Your task to perform on an android device: turn off wifi Image 0: 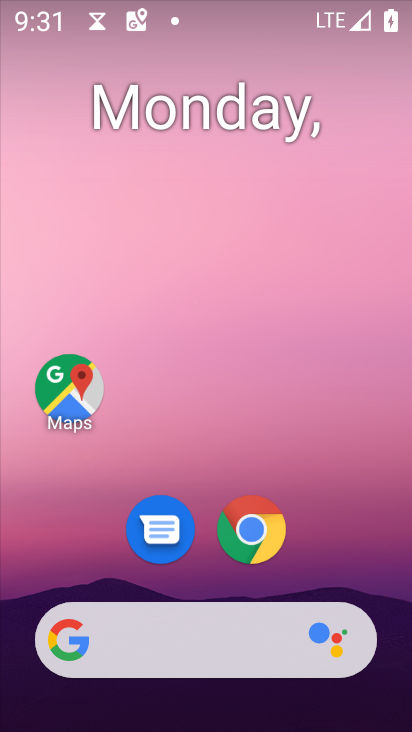
Step 0: drag from (303, 626) to (190, 71)
Your task to perform on an android device: turn off wifi Image 1: 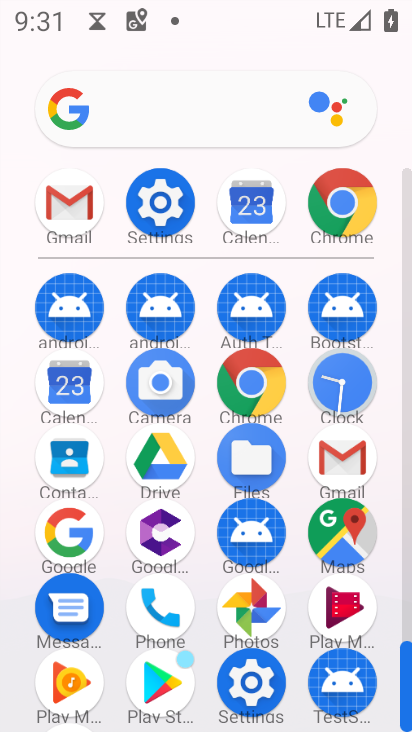
Step 1: click (158, 193)
Your task to perform on an android device: turn off wifi Image 2: 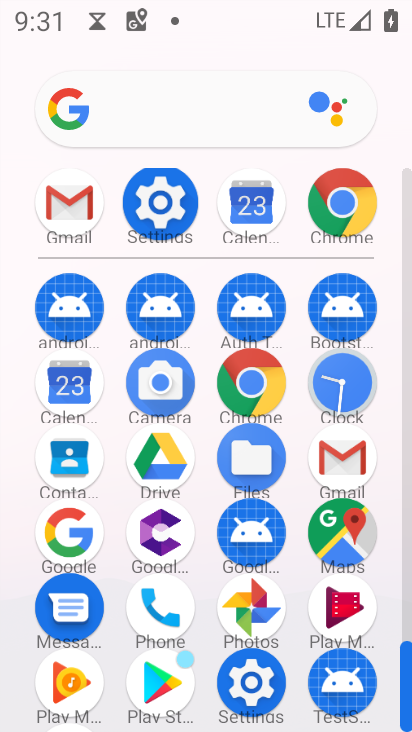
Step 2: click (161, 192)
Your task to perform on an android device: turn off wifi Image 3: 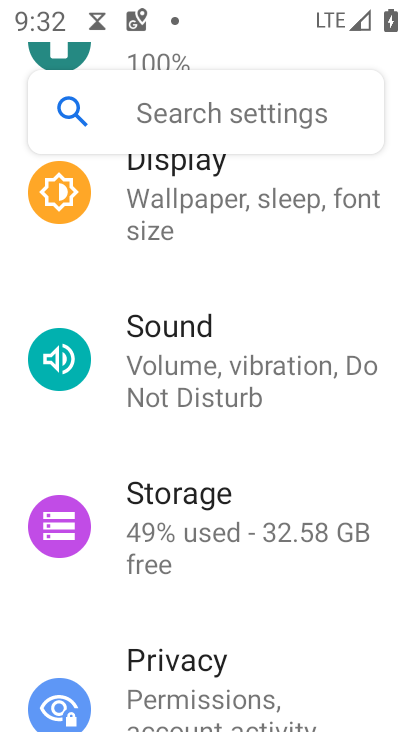
Step 3: click (193, 171)
Your task to perform on an android device: turn off wifi Image 4: 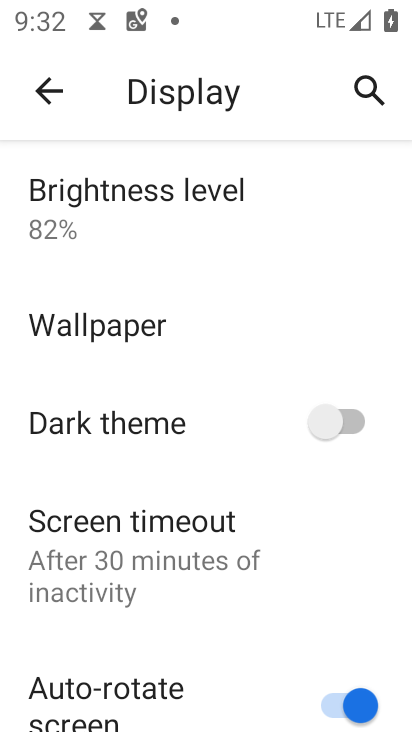
Step 4: click (54, 117)
Your task to perform on an android device: turn off wifi Image 5: 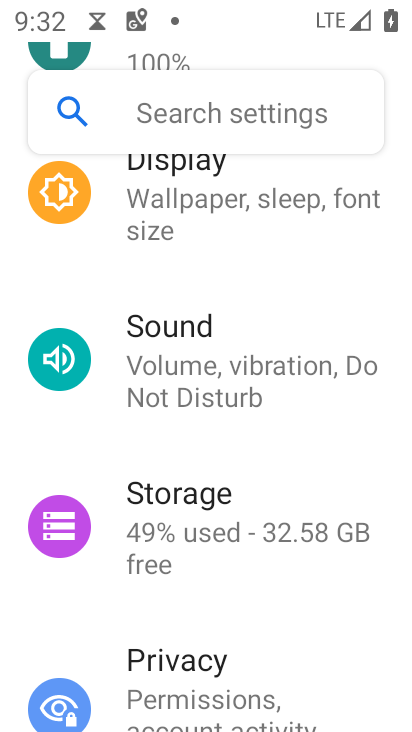
Step 5: drag from (200, 230) to (214, 700)
Your task to perform on an android device: turn off wifi Image 6: 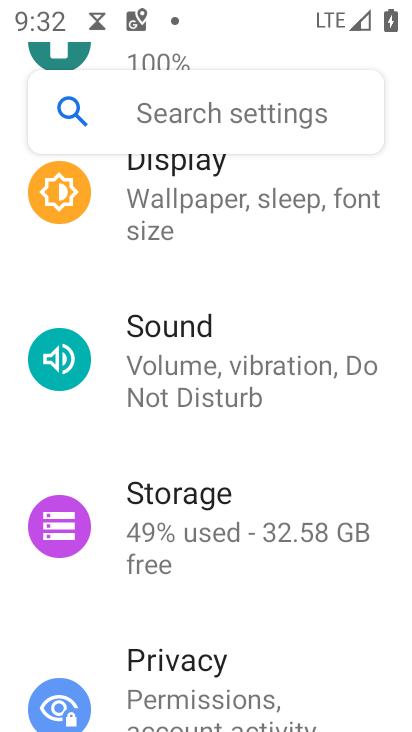
Step 6: drag from (186, 416) to (198, 660)
Your task to perform on an android device: turn off wifi Image 7: 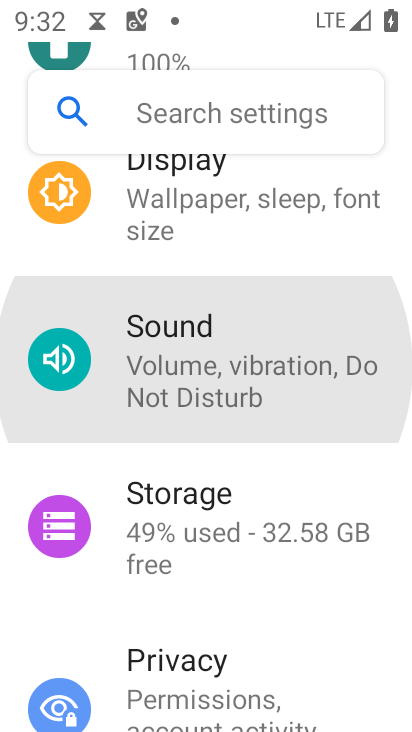
Step 7: drag from (200, 268) to (264, 680)
Your task to perform on an android device: turn off wifi Image 8: 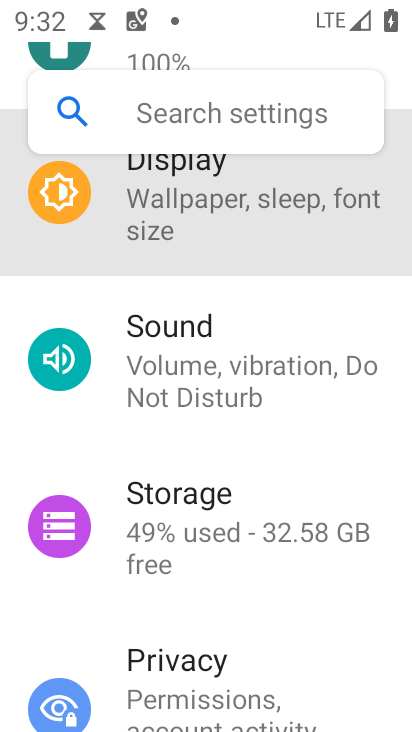
Step 8: drag from (250, 376) to (232, 671)
Your task to perform on an android device: turn off wifi Image 9: 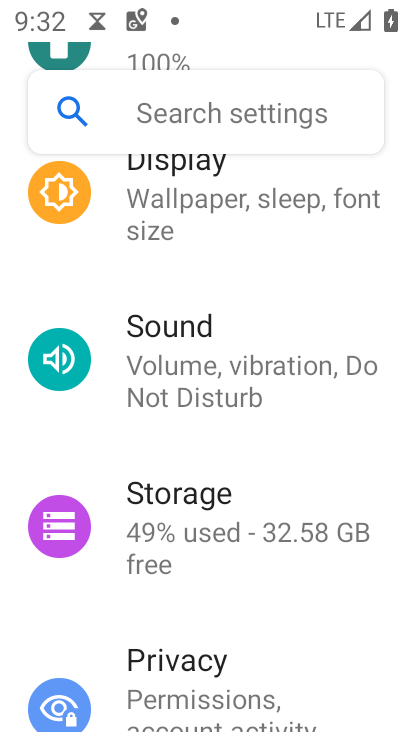
Step 9: drag from (179, 660) to (235, 222)
Your task to perform on an android device: turn off wifi Image 10: 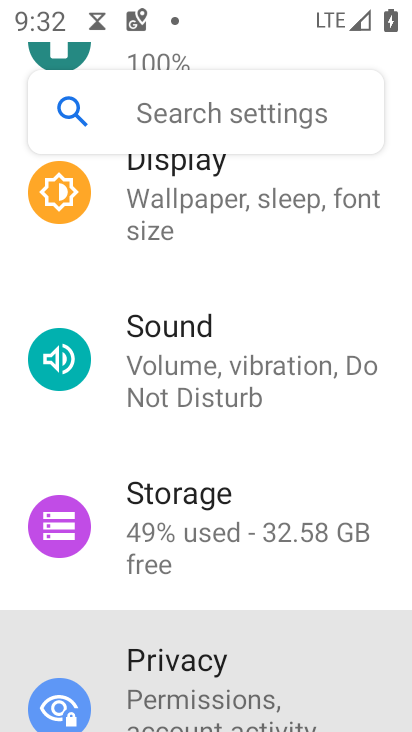
Step 10: drag from (193, 586) to (182, 175)
Your task to perform on an android device: turn off wifi Image 11: 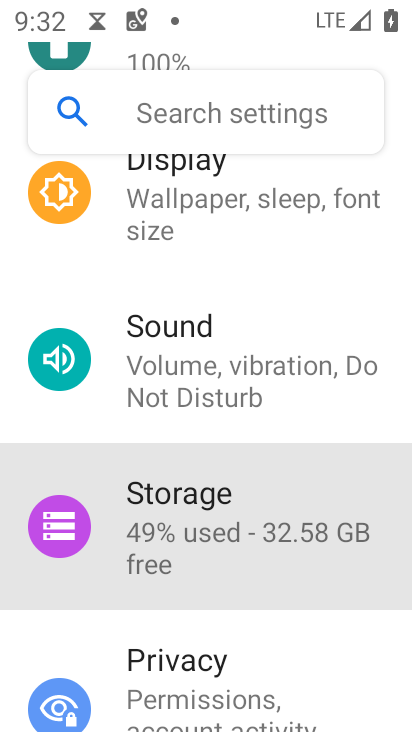
Step 11: drag from (223, 617) to (297, 268)
Your task to perform on an android device: turn off wifi Image 12: 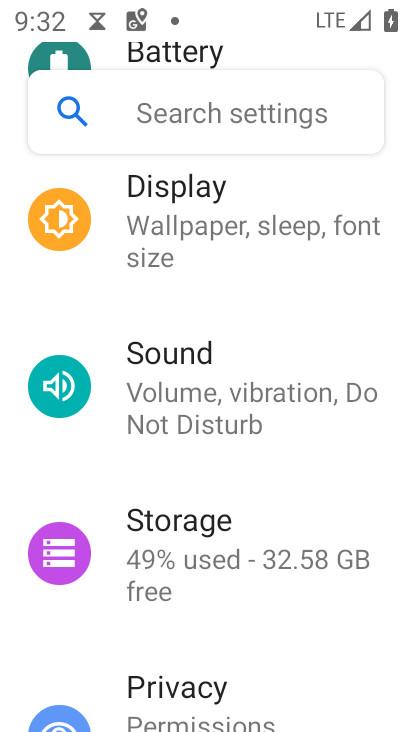
Step 12: drag from (253, 651) to (290, 261)
Your task to perform on an android device: turn off wifi Image 13: 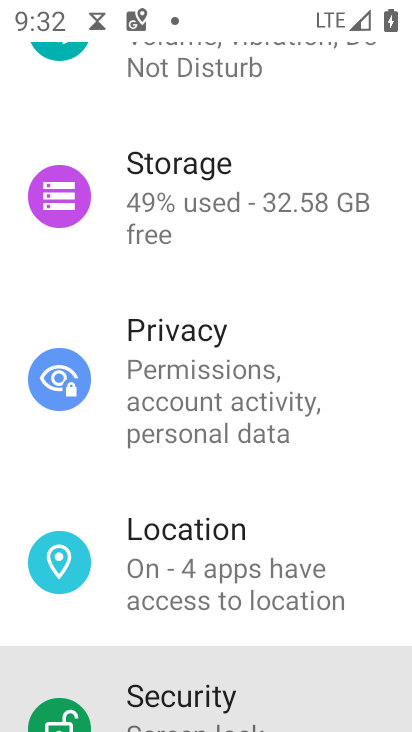
Step 13: drag from (270, 300) to (220, 724)
Your task to perform on an android device: turn off wifi Image 14: 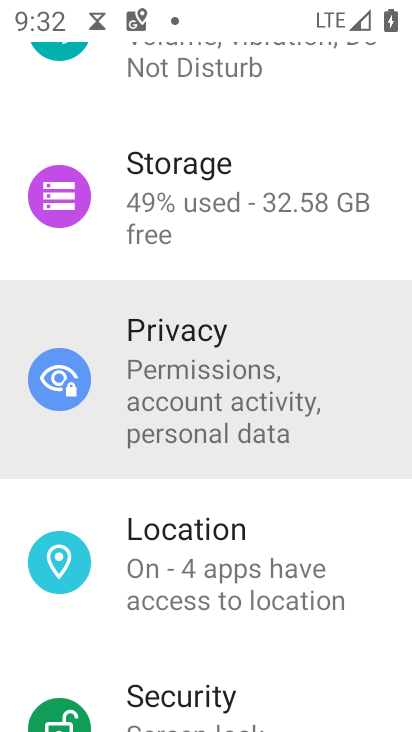
Step 14: drag from (195, 254) to (171, 688)
Your task to perform on an android device: turn off wifi Image 15: 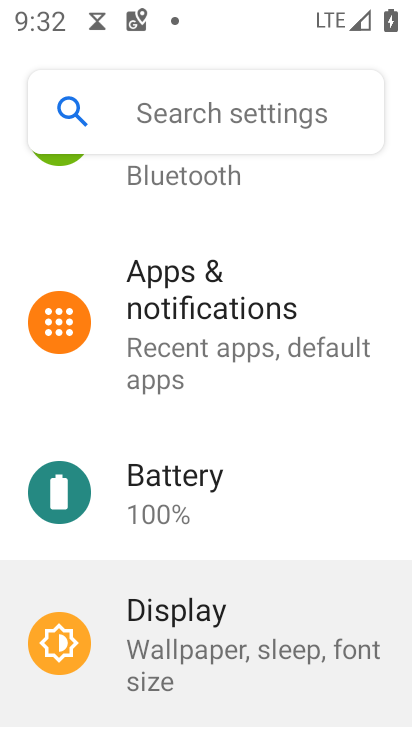
Step 15: drag from (167, 262) to (211, 727)
Your task to perform on an android device: turn off wifi Image 16: 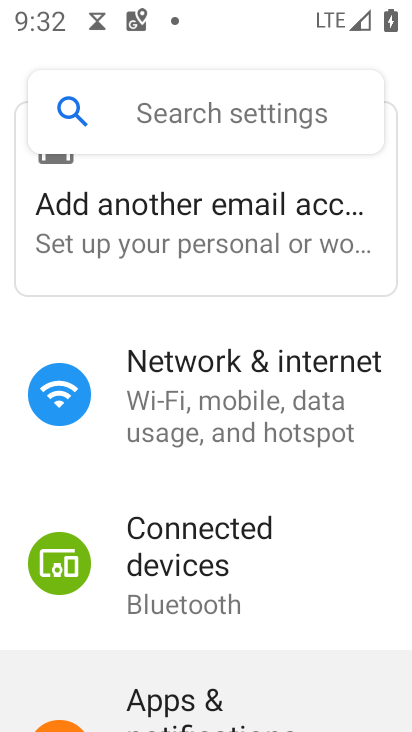
Step 16: drag from (235, 340) to (249, 687)
Your task to perform on an android device: turn off wifi Image 17: 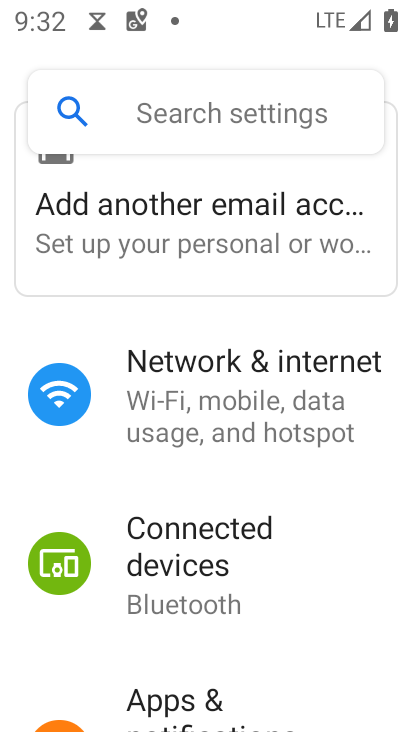
Step 17: click (197, 588)
Your task to perform on an android device: turn off wifi Image 18: 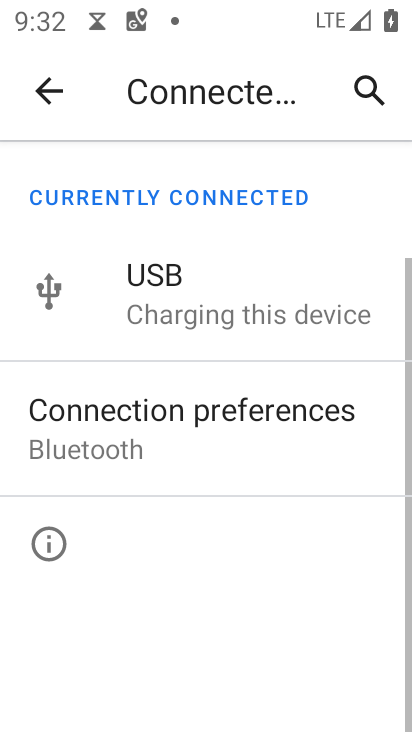
Step 18: click (232, 410)
Your task to perform on an android device: turn off wifi Image 19: 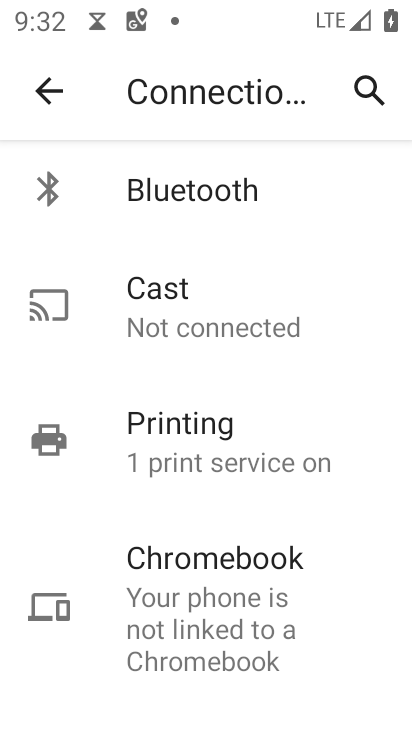
Step 19: click (53, 81)
Your task to perform on an android device: turn off wifi Image 20: 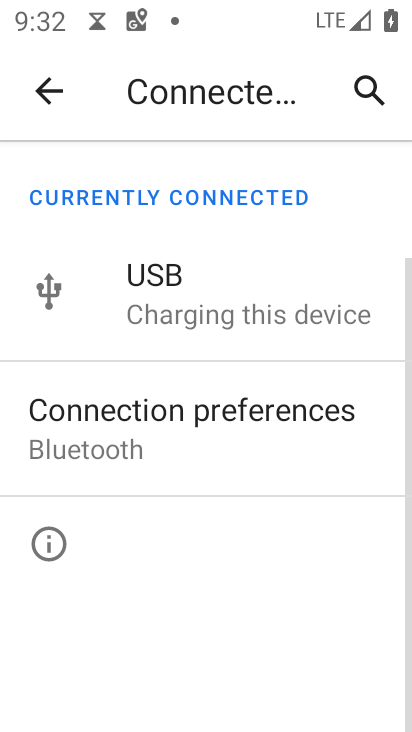
Step 20: click (70, 99)
Your task to perform on an android device: turn off wifi Image 21: 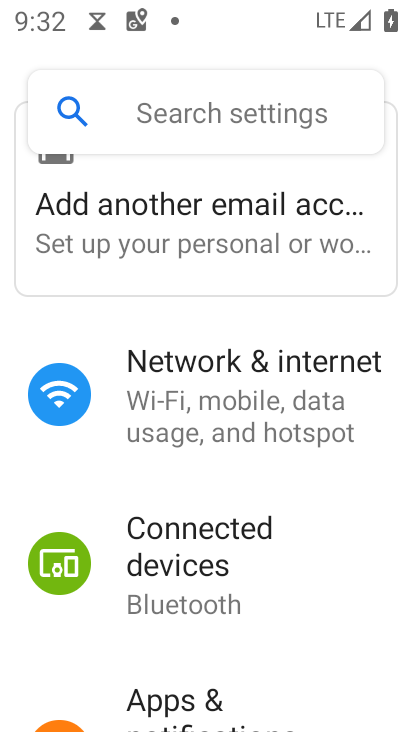
Step 21: click (249, 409)
Your task to perform on an android device: turn off wifi Image 22: 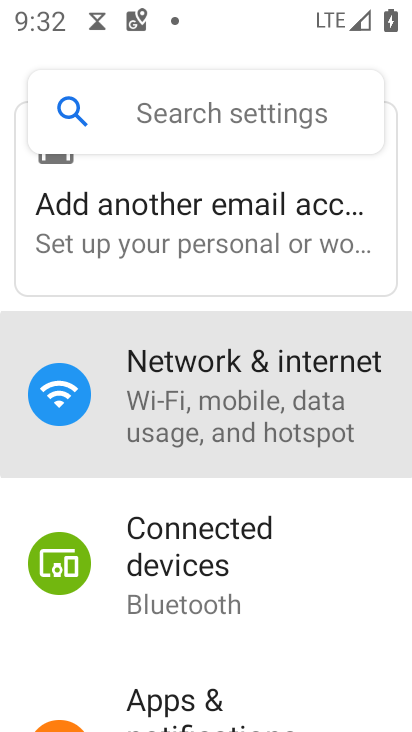
Step 22: click (249, 409)
Your task to perform on an android device: turn off wifi Image 23: 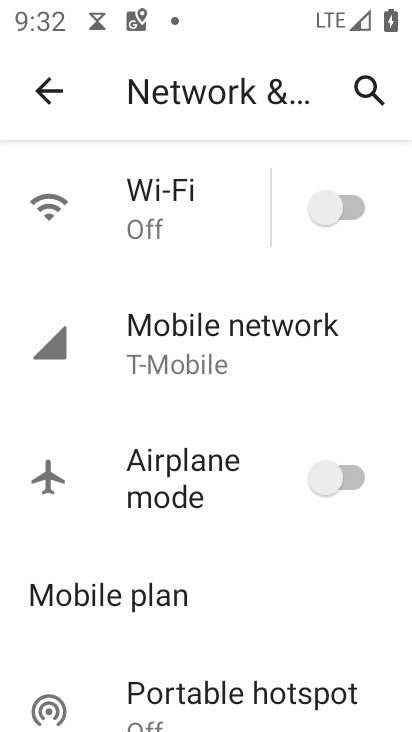
Step 23: task complete